Your task to perform on an android device: check the backup settings in the google photos Image 0: 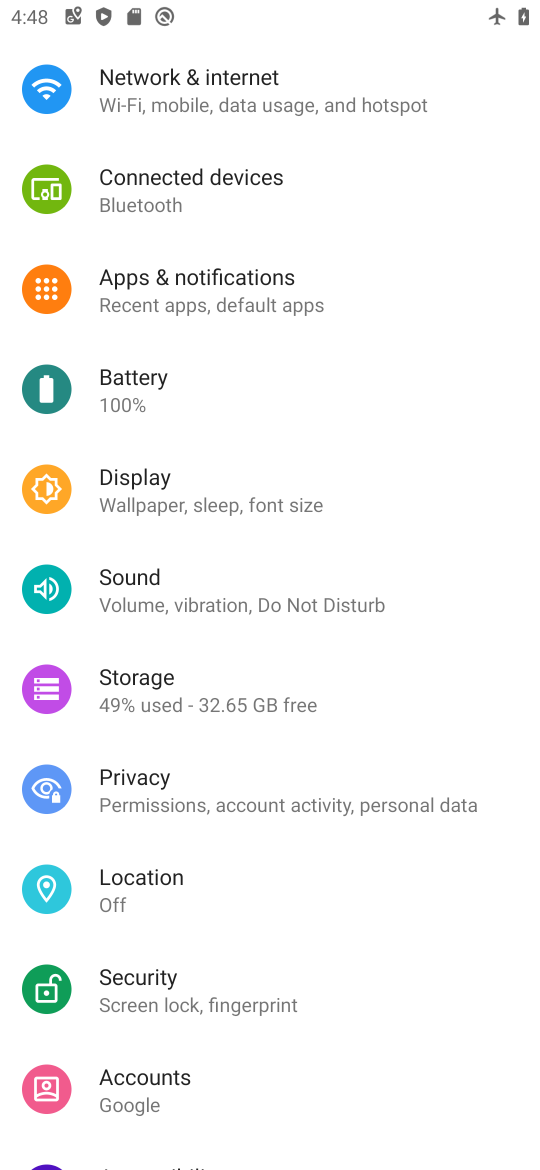
Step 0: press home button
Your task to perform on an android device: check the backup settings in the google photos Image 1: 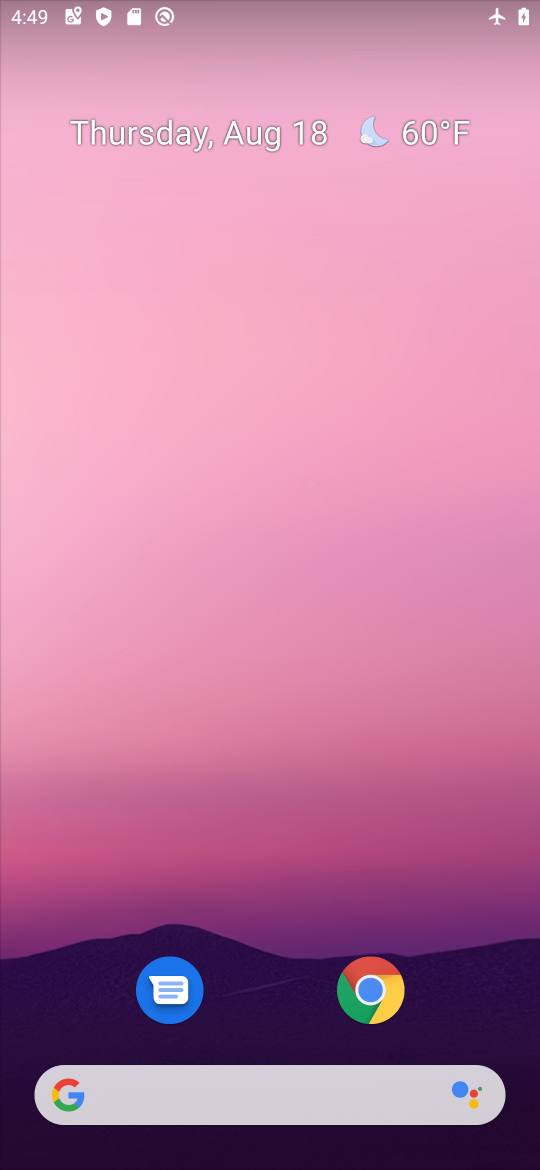
Step 1: drag from (258, 1006) to (504, 200)
Your task to perform on an android device: check the backup settings in the google photos Image 2: 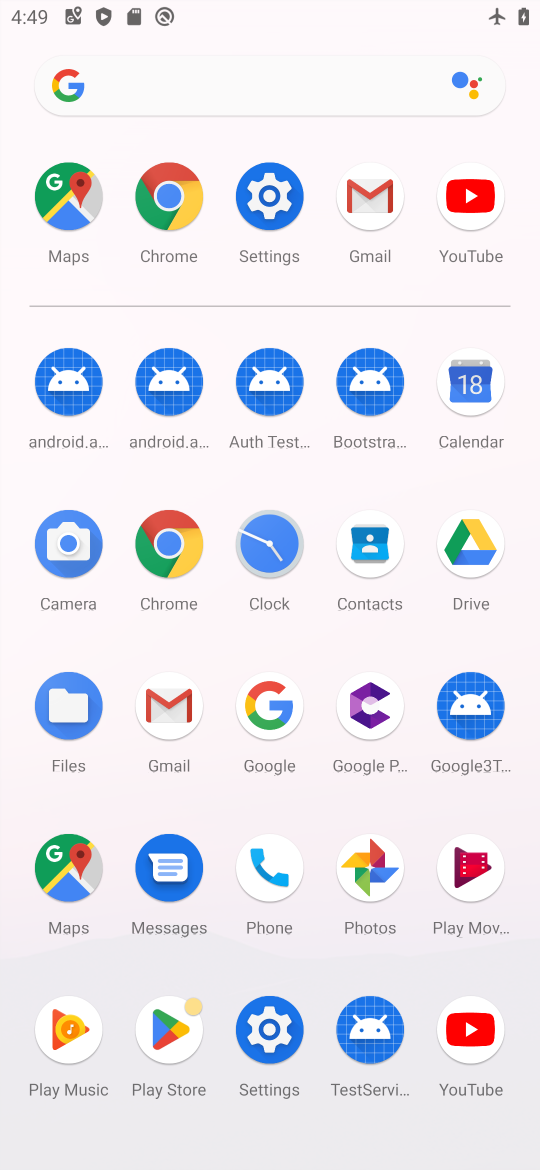
Step 2: click (379, 852)
Your task to perform on an android device: check the backup settings in the google photos Image 3: 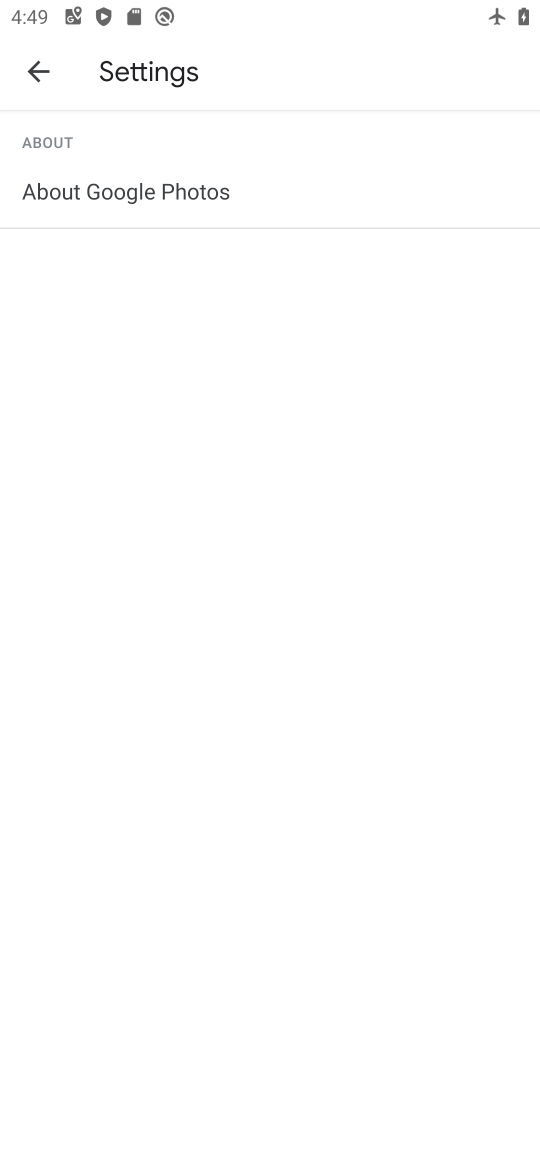
Step 3: press back button
Your task to perform on an android device: check the backup settings in the google photos Image 4: 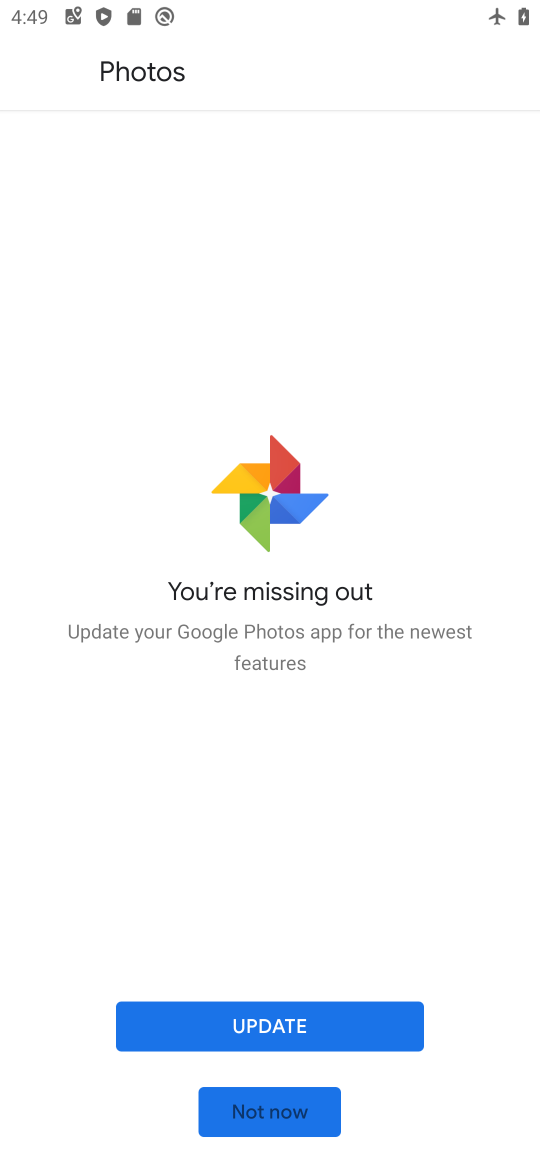
Step 4: press back button
Your task to perform on an android device: check the backup settings in the google photos Image 5: 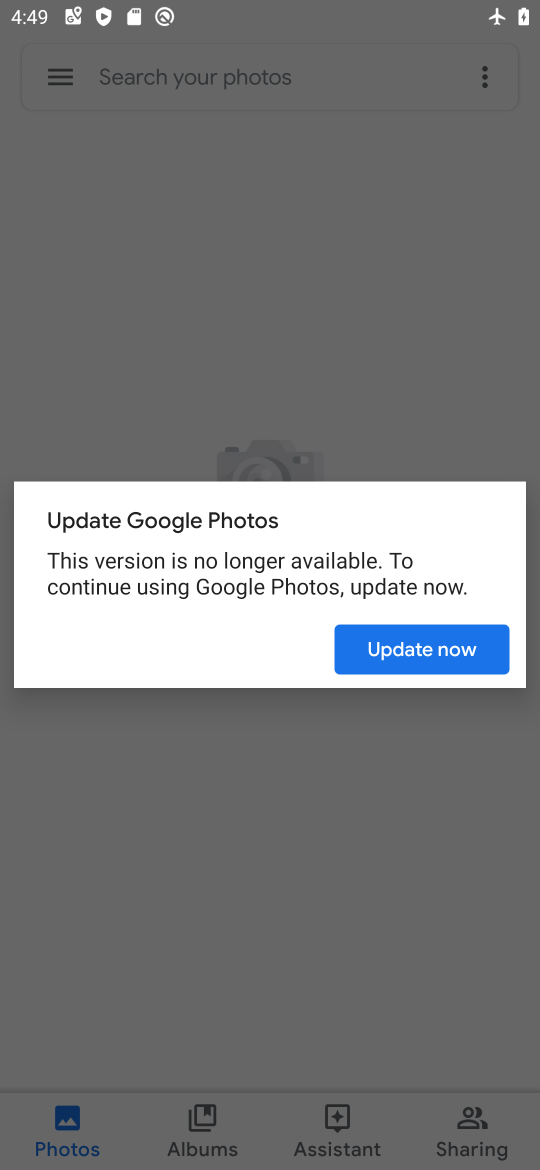
Step 5: press back button
Your task to perform on an android device: check the backup settings in the google photos Image 6: 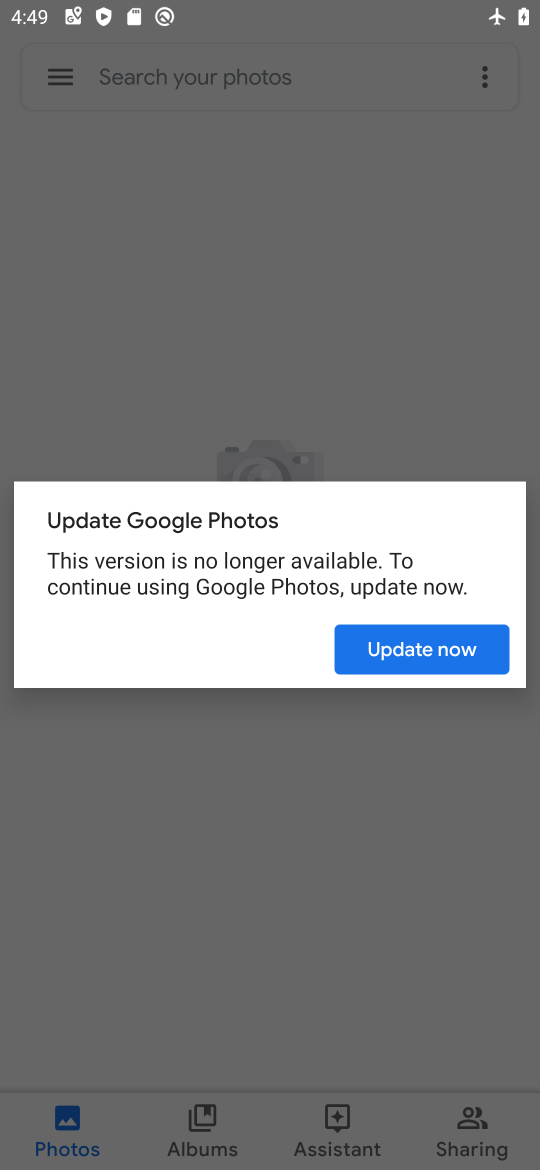
Step 6: click (450, 639)
Your task to perform on an android device: check the backup settings in the google photos Image 7: 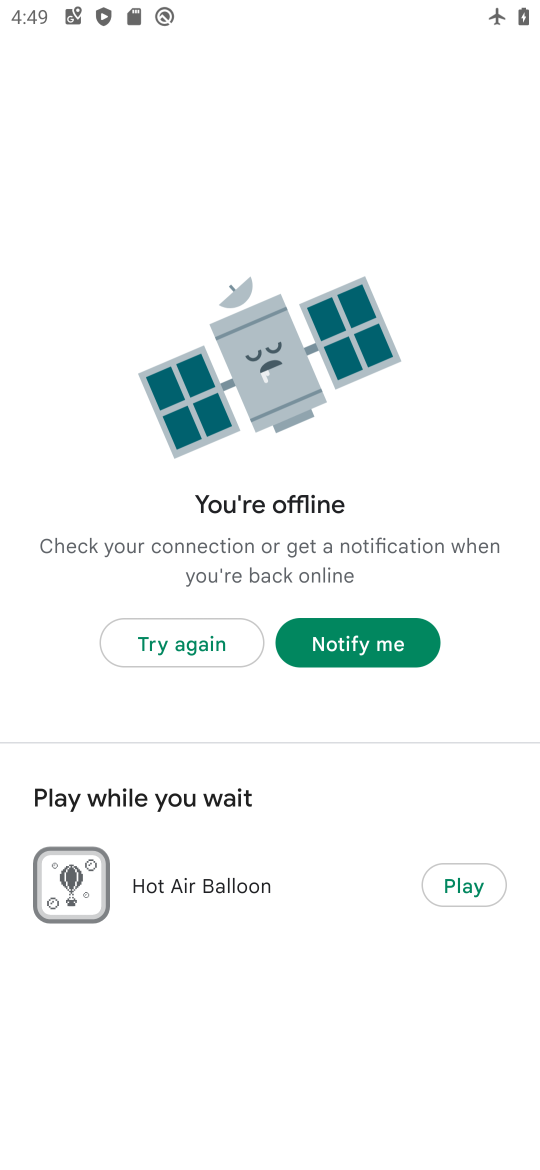
Step 7: task complete